Your task to perform on an android device: allow notifications from all sites in the chrome app Image 0: 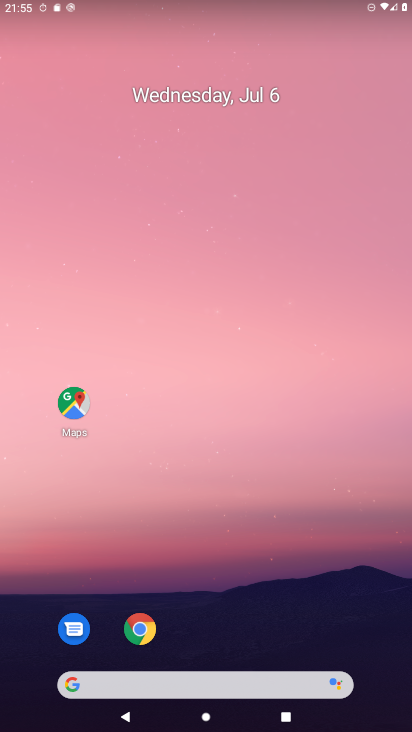
Step 0: click (148, 633)
Your task to perform on an android device: allow notifications from all sites in the chrome app Image 1: 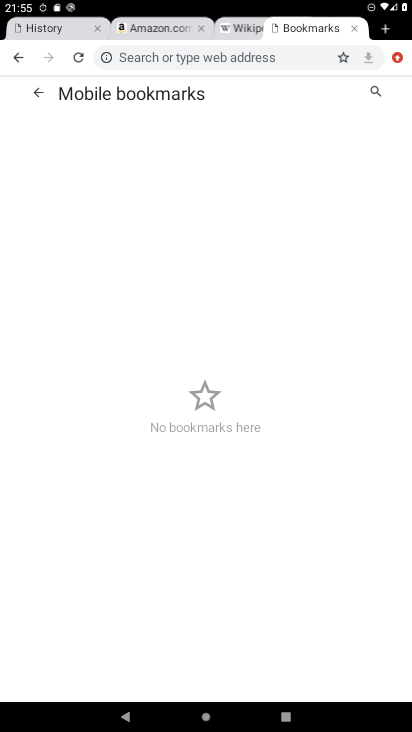
Step 1: click (395, 56)
Your task to perform on an android device: allow notifications from all sites in the chrome app Image 2: 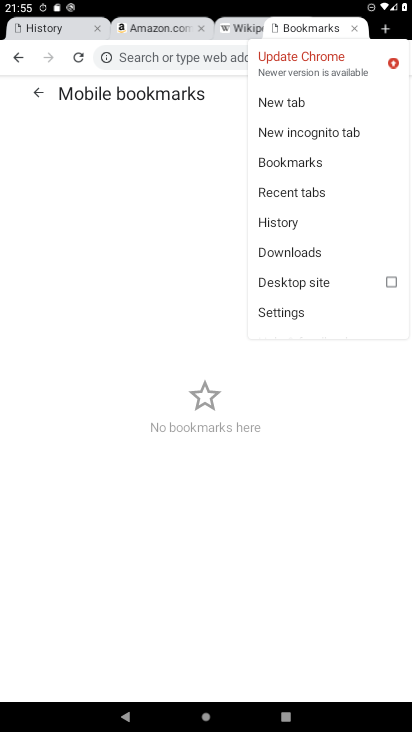
Step 2: click (288, 310)
Your task to perform on an android device: allow notifications from all sites in the chrome app Image 3: 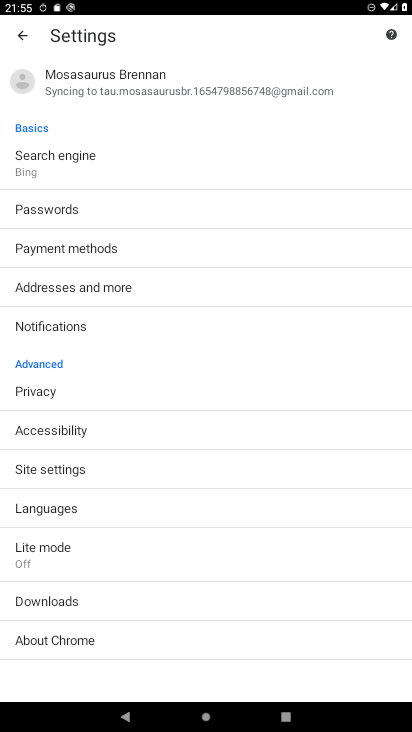
Step 3: click (58, 469)
Your task to perform on an android device: allow notifications from all sites in the chrome app Image 4: 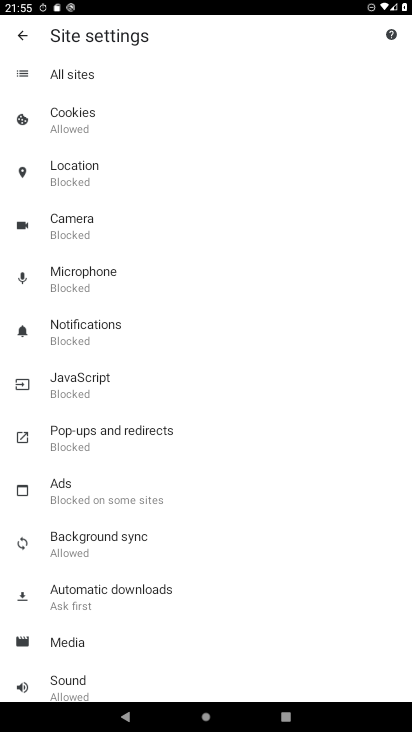
Step 4: click (78, 327)
Your task to perform on an android device: allow notifications from all sites in the chrome app Image 5: 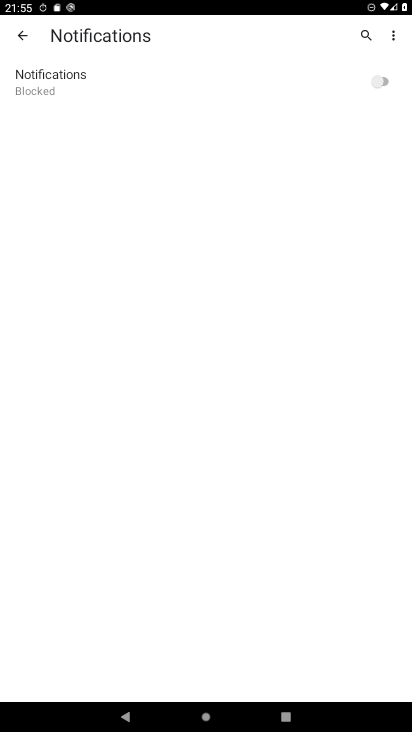
Step 5: click (384, 81)
Your task to perform on an android device: allow notifications from all sites in the chrome app Image 6: 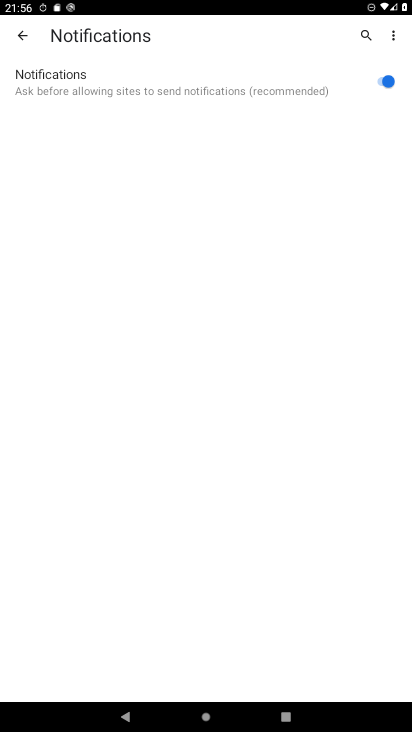
Step 6: task complete